Your task to perform on an android device: Search for Italian restaurants on Maps Image 0: 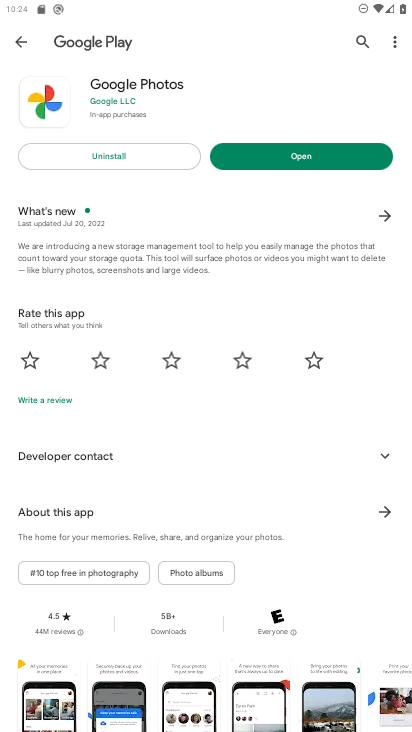
Step 0: press back button
Your task to perform on an android device: Search for Italian restaurants on Maps Image 1: 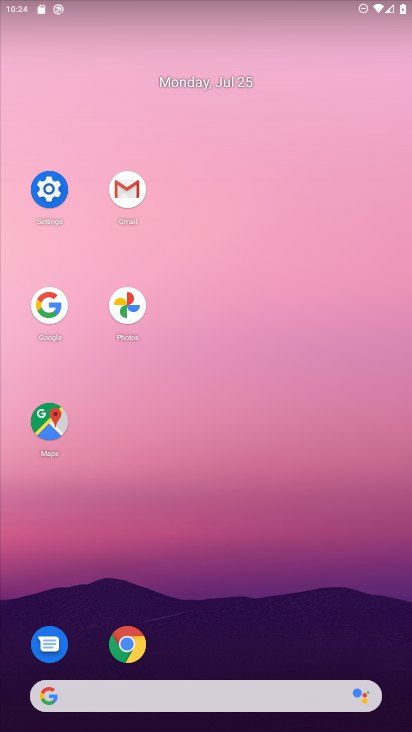
Step 1: click (47, 434)
Your task to perform on an android device: Search for Italian restaurants on Maps Image 2: 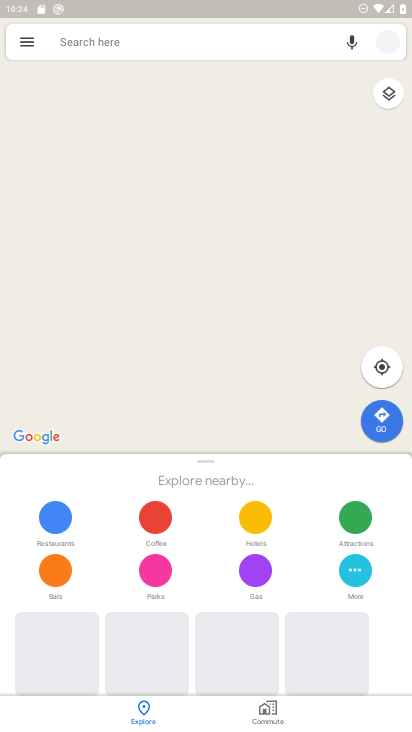
Step 2: click (181, 45)
Your task to perform on an android device: Search for Italian restaurants on Maps Image 3: 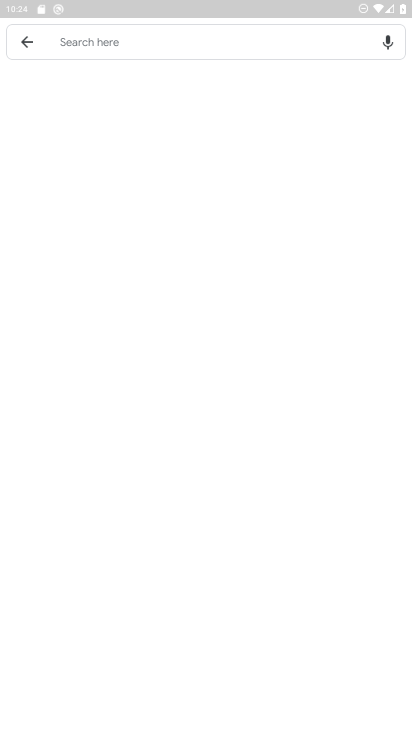
Step 3: click (316, 43)
Your task to perform on an android device: Search for Italian restaurants on Maps Image 4: 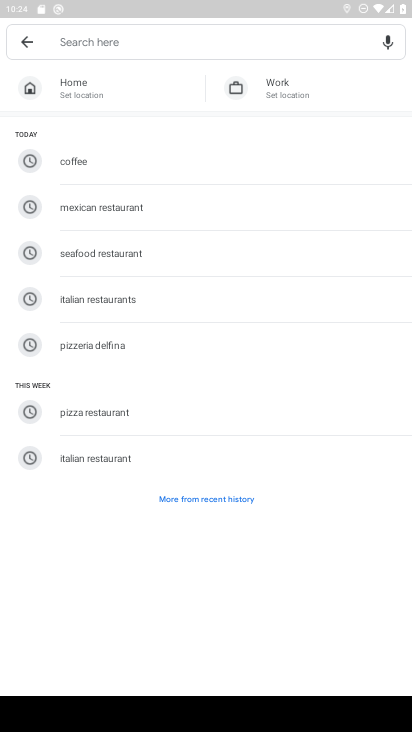
Step 4: click (138, 301)
Your task to perform on an android device: Search for Italian restaurants on Maps Image 5: 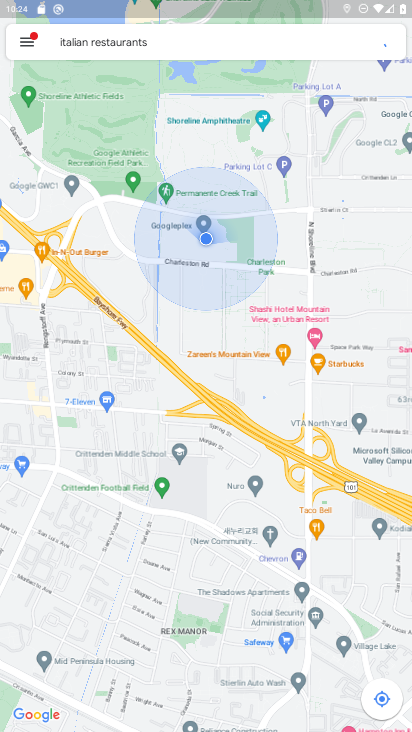
Step 5: task complete